Your task to perform on an android device: Add corsair k70 to the cart on target Image 0: 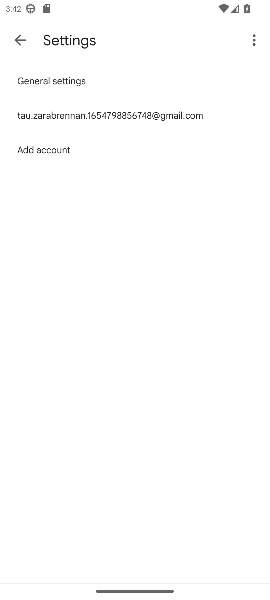
Step 0: press home button
Your task to perform on an android device: Add corsair k70 to the cart on target Image 1: 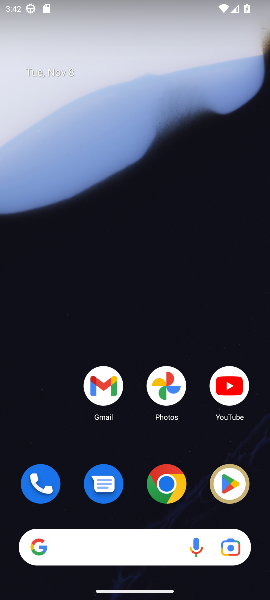
Step 1: click (153, 487)
Your task to perform on an android device: Add corsair k70 to the cart on target Image 2: 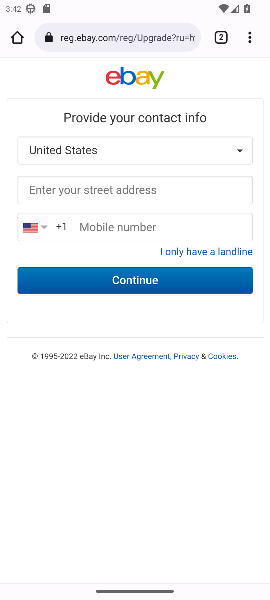
Step 2: click (88, 35)
Your task to perform on an android device: Add corsair k70 to the cart on target Image 3: 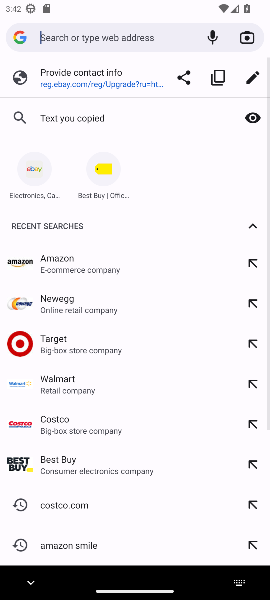
Step 3: click (84, 345)
Your task to perform on an android device: Add corsair k70 to the cart on target Image 4: 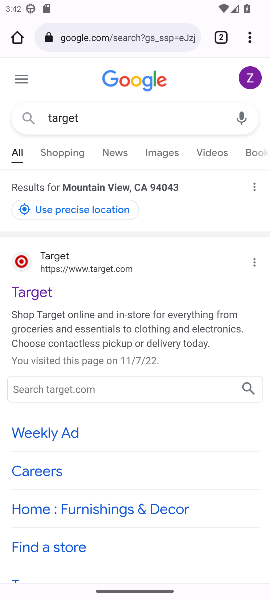
Step 4: click (32, 288)
Your task to perform on an android device: Add corsair k70 to the cart on target Image 5: 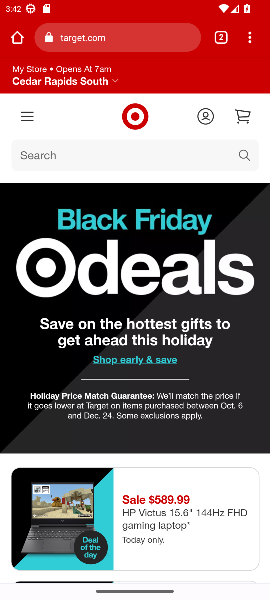
Step 5: click (123, 155)
Your task to perform on an android device: Add corsair k70 to the cart on target Image 6: 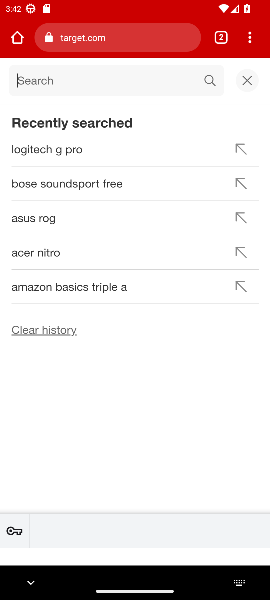
Step 6: type "corsair k70"
Your task to perform on an android device: Add corsair k70 to the cart on target Image 7: 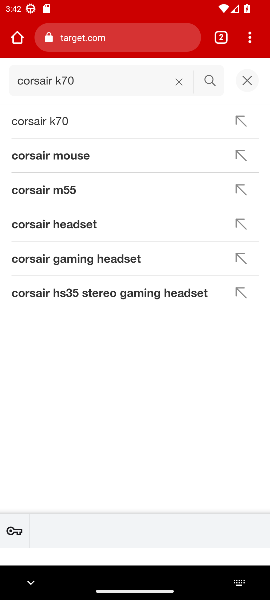
Step 7: click (204, 85)
Your task to perform on an android device: Add corsair k70 to the cart on target Image 8: 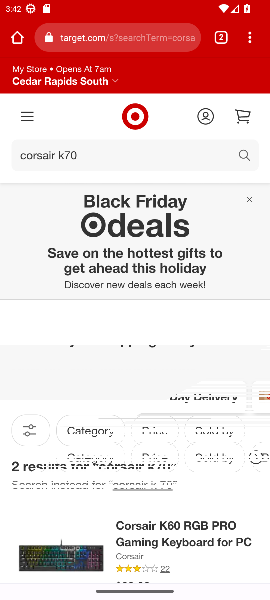
Step 8: task complete